Your task to perform on an android device: open app "NewsBreak: Local News & Alerts" (install if not already installed) Image 0: 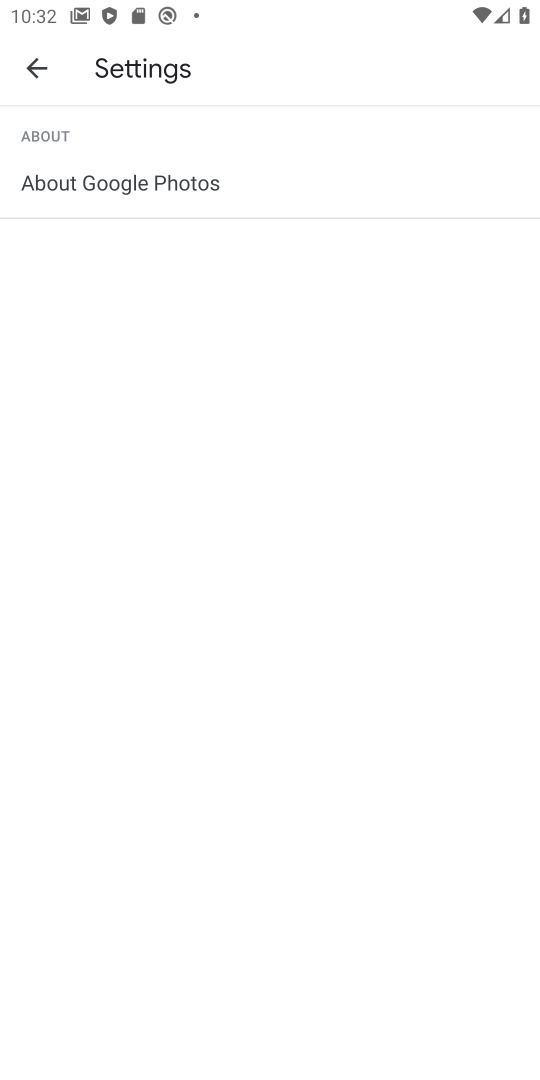
Step 0: press home button
Your task to perform on an android device: open app "NewsBreak: Local News & Alerts" (install if not already installed) Image 1: 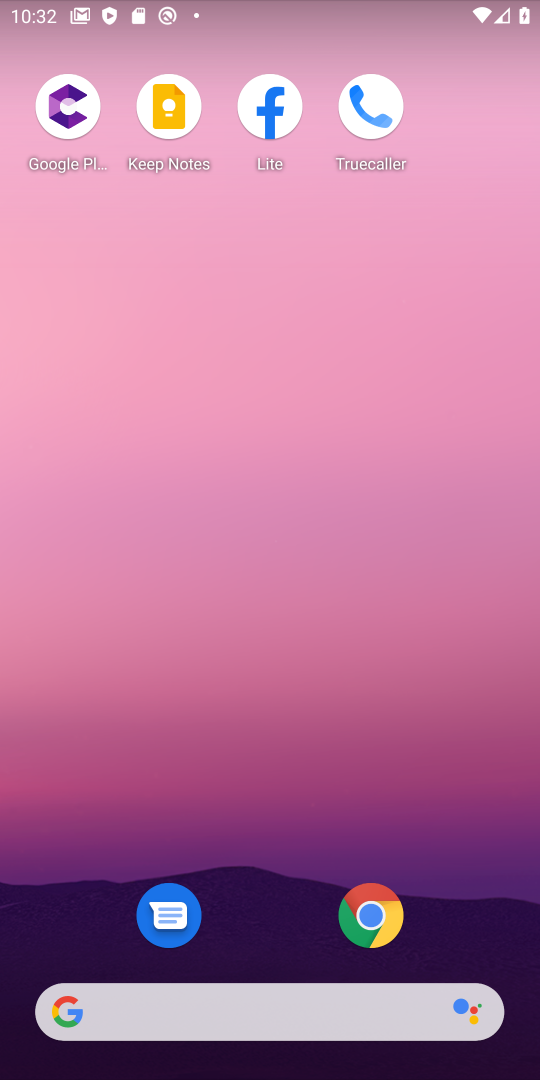
Step 1: drag from (275, 906) to (338, 81)
Your task to perform on an android device: open app "NewsBreak: Local News & Alerts" (install if not already installed) Image 2: 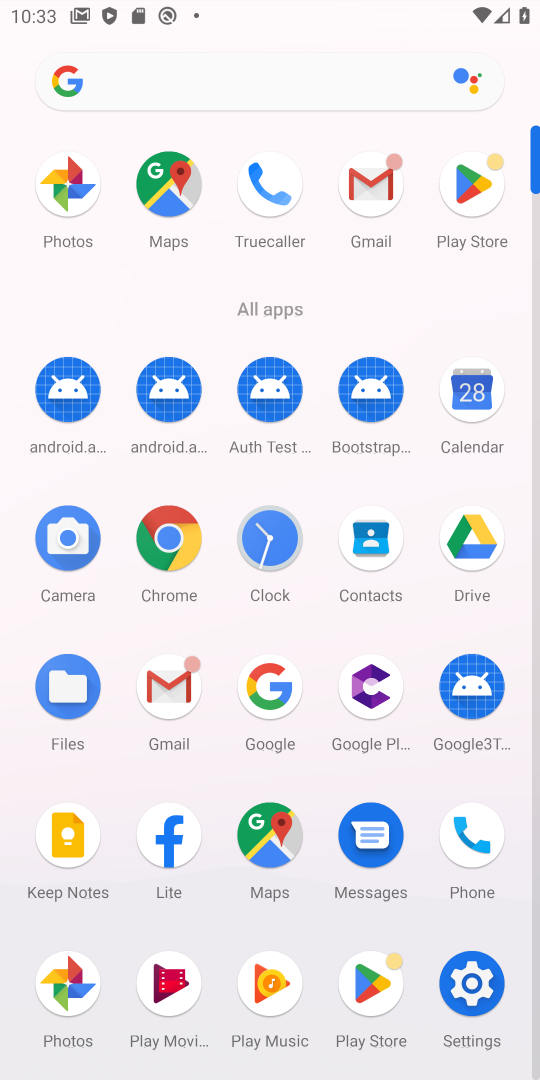
Step 2: click (467, 180)
Your task to perform on an android device: open app "NewsBreak: Local News & Alerts" (install if not already installed) Image 3: 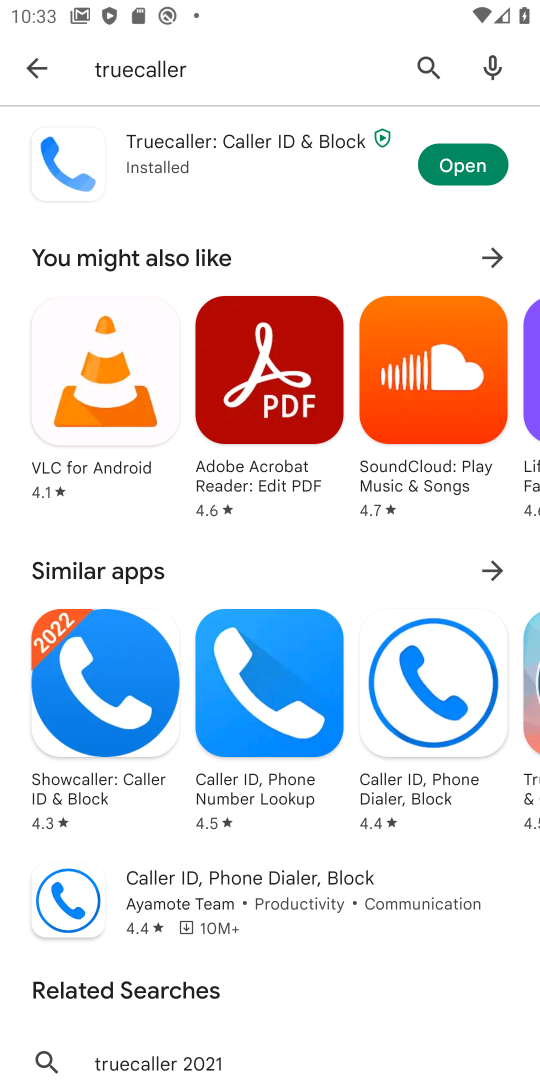
Step 3: click (24, 61)
Your task to perform on an android device: open app "NewsBreak: Local News & Alerts" (install if not already installed) Image 4: 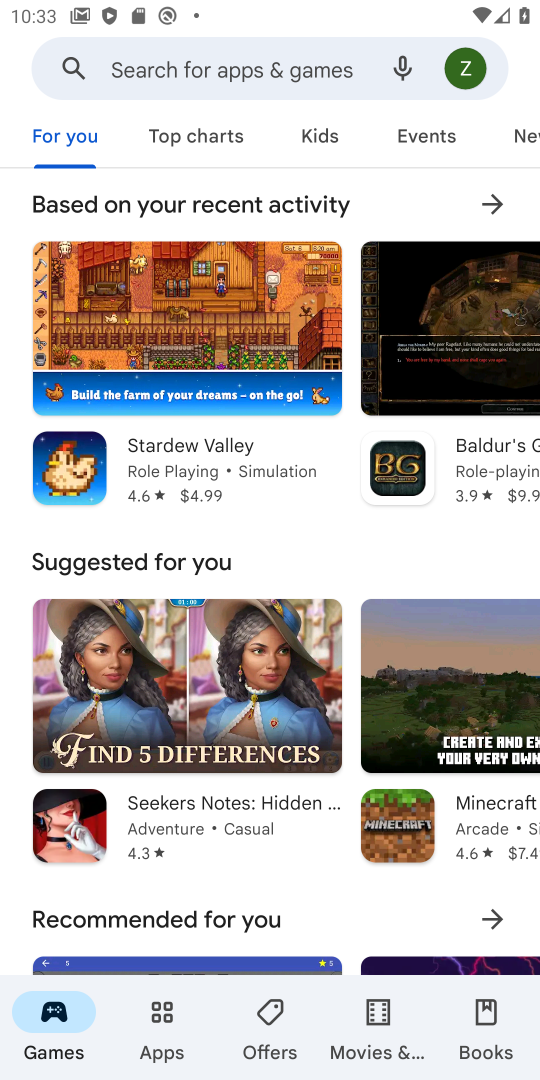
Step 4: click (150, 57)
Your task to perform on an android device: open app "NewsBreak: Local News & Alerts" (install if not already installed) Image 5: 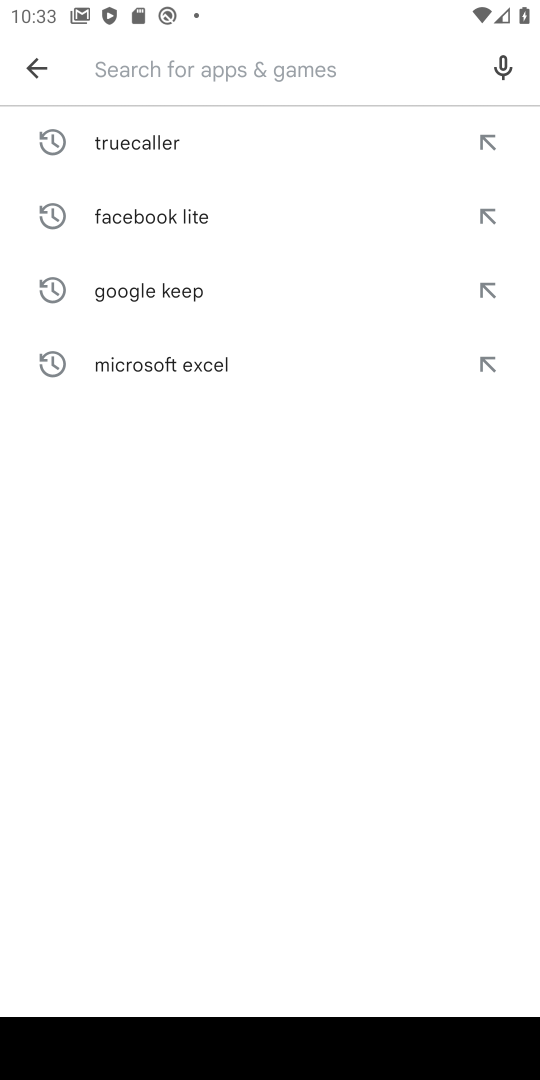
Step 5: type "NewsBreak: Local News & Alerts"
Your task to perform on an android device: open app "NewsBreak: Local News & Alerts" (install if not already installed) Image 6: 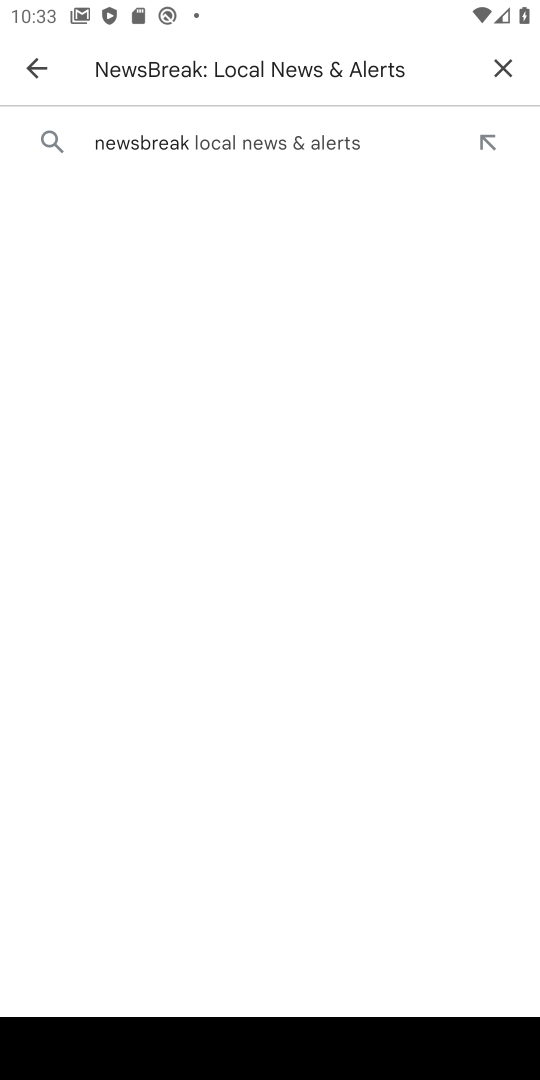
Step 6: click (209, 146)
Your task to perform on an android device: open app "NewsBreak: Local News & Alerts" (install if not already installed) Image 7: 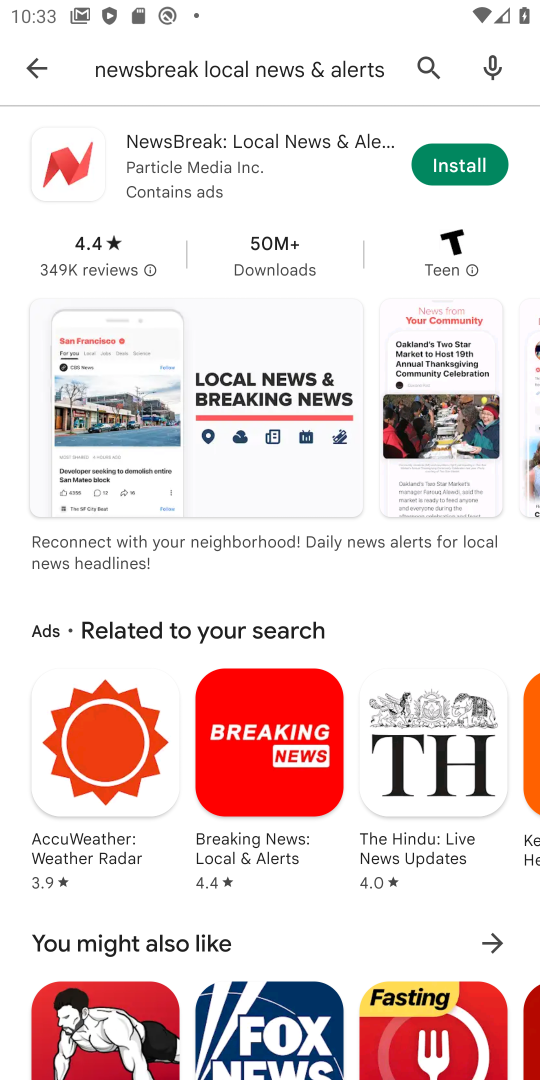
Step 7: click (445, 163)
Your task to perform on an android device: open app "NewsBreak: Local News & Alerts" (install if not already installed) Image 8: 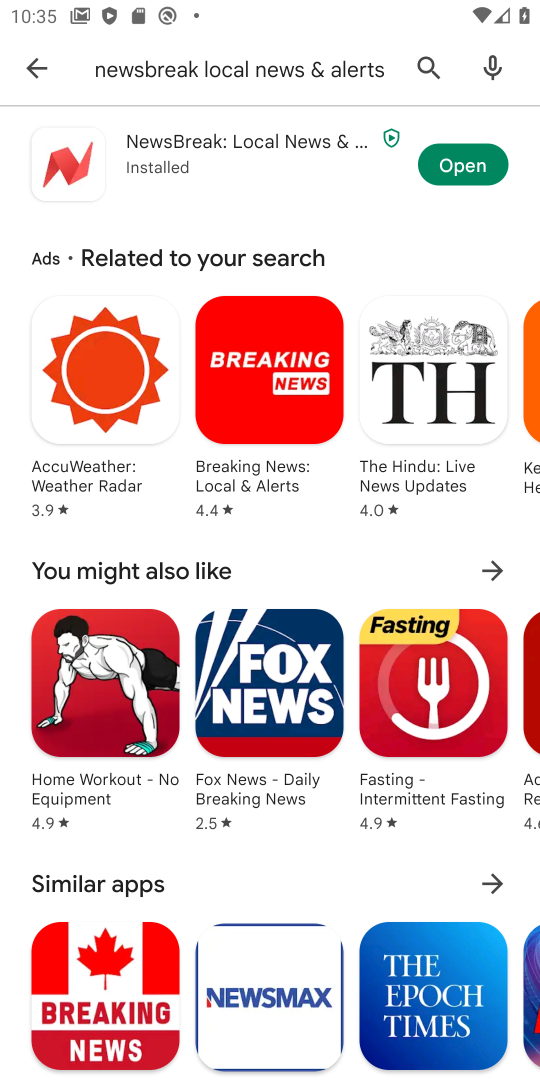
Step 8: click (424, 169)
Your task to perform on an android device: open app "NewsBreak: Local News & Alerts" (install if not already installed) Image 9: 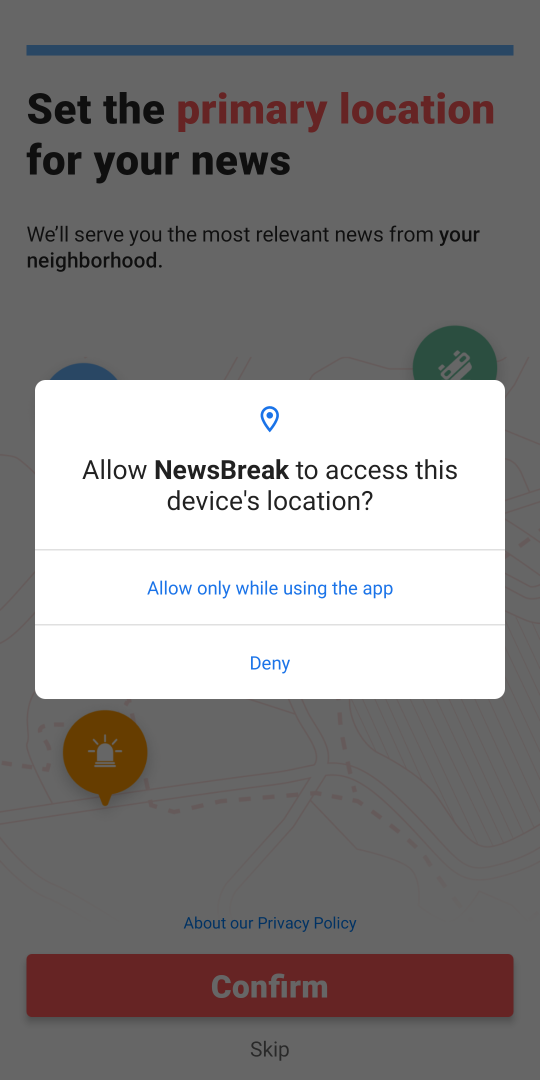
Step 9: click (335, 589)
Your task to perform on an android device: open app "NewsBreak: Local News & Alerts" (install if not already installed) Image 10: 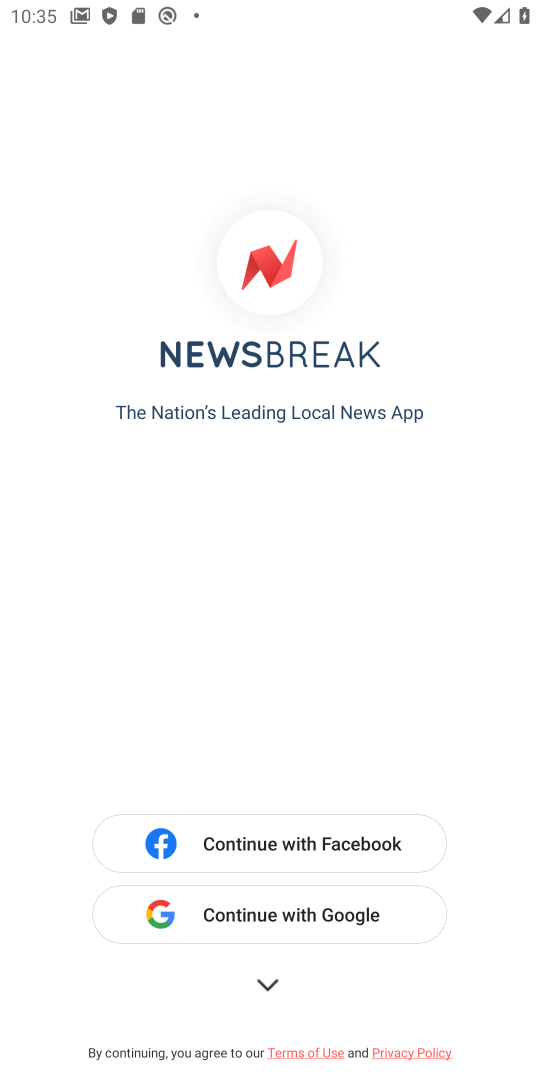
Step 10: task complete